Your task to perform on an android device: open the mobile data screen to see how much data has been used Image 0: 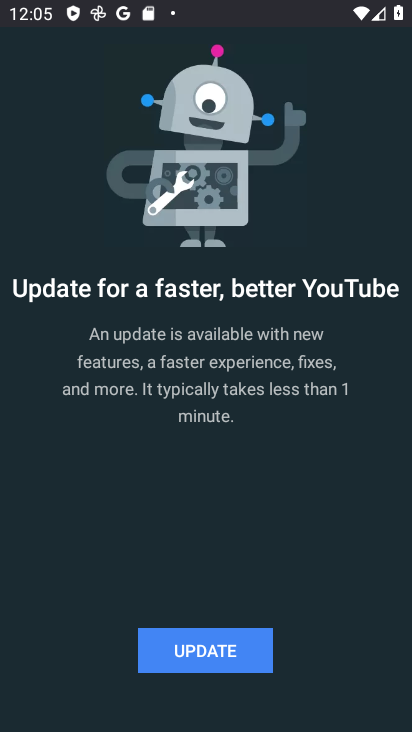
Step 0: press back button
Your task to perform on an android device: open the mobile data screen to see how much data has been used Image 1: 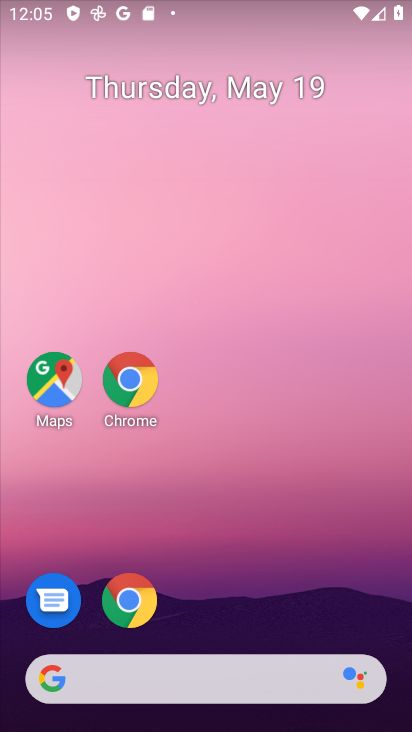
Step 1: drag from (285, 640) to (159, 69)
Your task to perform on an android device: open the mobile data screen to see how much data has been used Image 2: 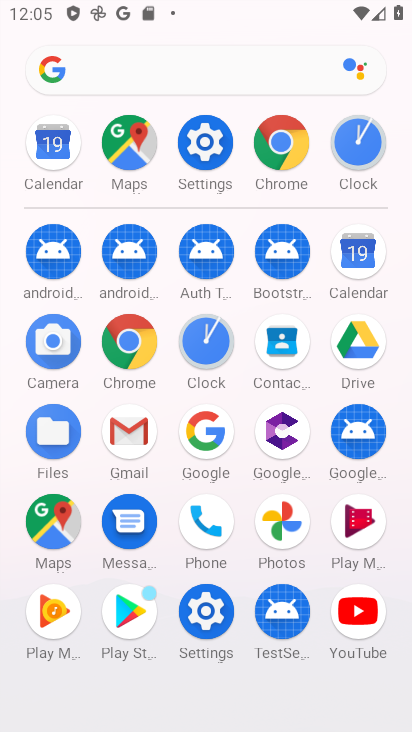
Step 2: click (210, 602)
Your task to perform on an android device: open the mobile data screen to see how much data has been used Image 3: 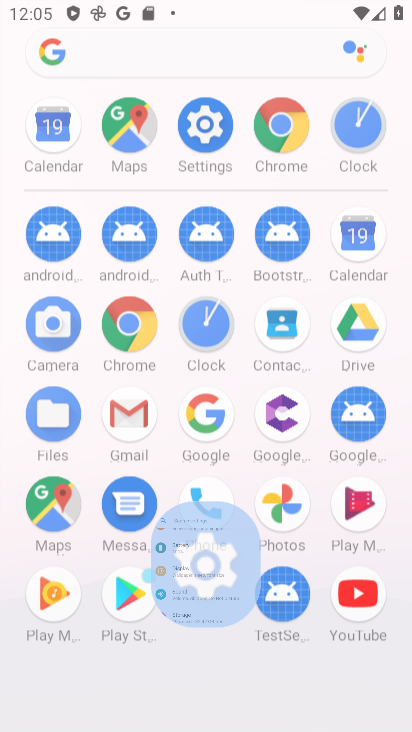
Step 3: click (214, 606)
Your task to perform on an android device: open the mobile data screen to see how much data has been used Image 4: 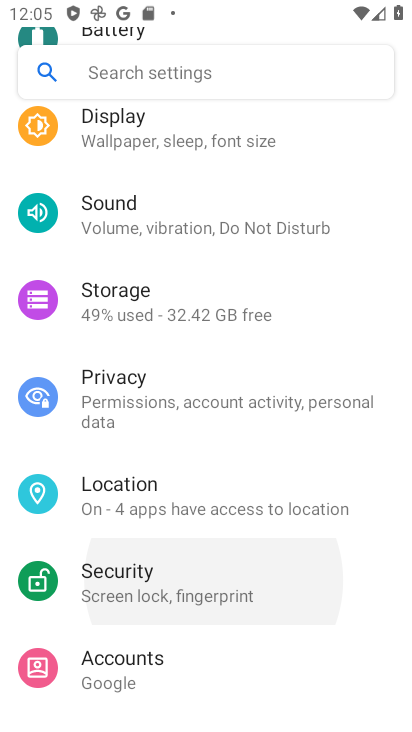
Step 4: click (214, 606)
Your task to perform on an android device: open the mobile data screen to see how much data has been used Image 5: 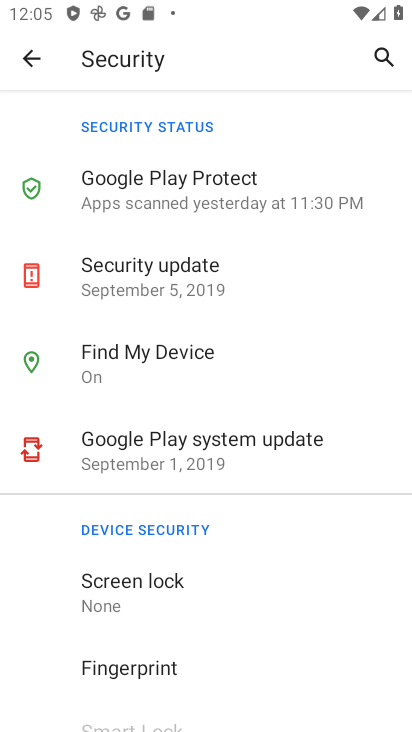
Step 5: click (32, 47)
Your task to perform on an android device: open the mobile data screen to see how much data has been used Image 6: 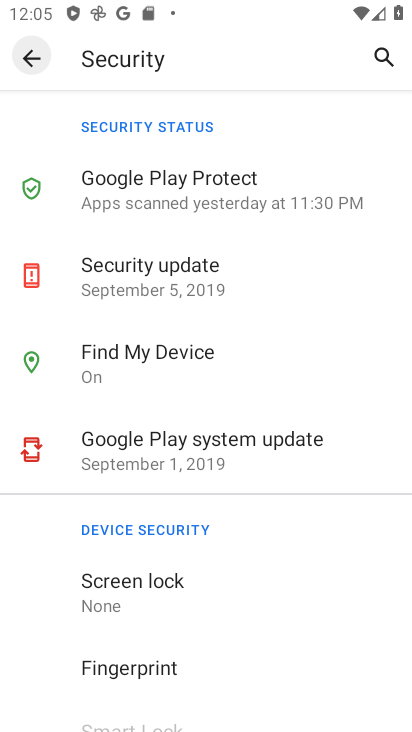
Step 6: click (34, 49)
Your task to perform on an android device: open the mobile data screen to see how much data has been used Image 7: 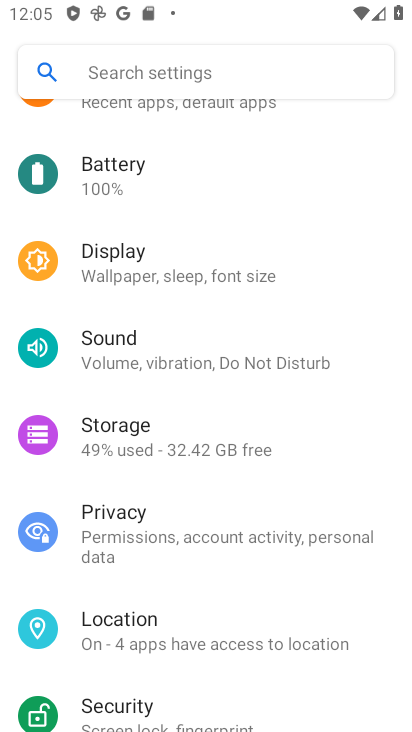
Step 7: drag from (111, 194) to (224, 571)
Your task to perform on an android device: open the mobile data screen to see how much data has been used Image 8: 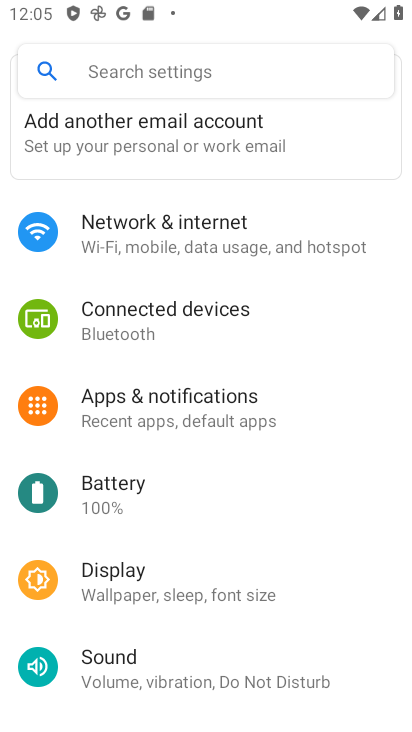
Step 8: drag from (77, 210) to (239, 532)
Your task to perform on an android device: open the mobile data screen to see how much data has been used Image 9: 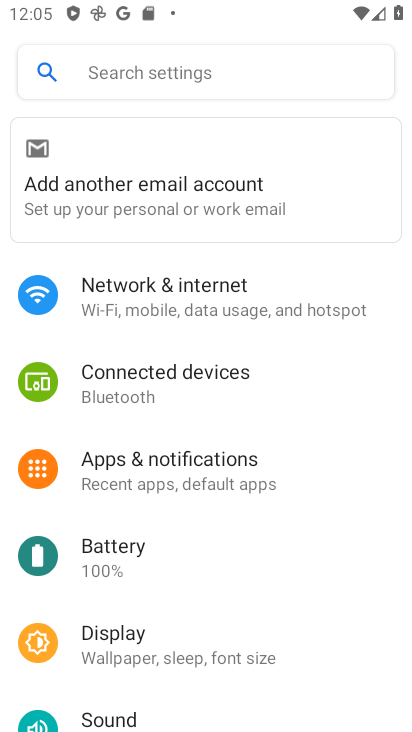
Step 9: click (167, 300)
Your task to perform on an android device: open the mobile data screen to see how much data has been used Image 10: 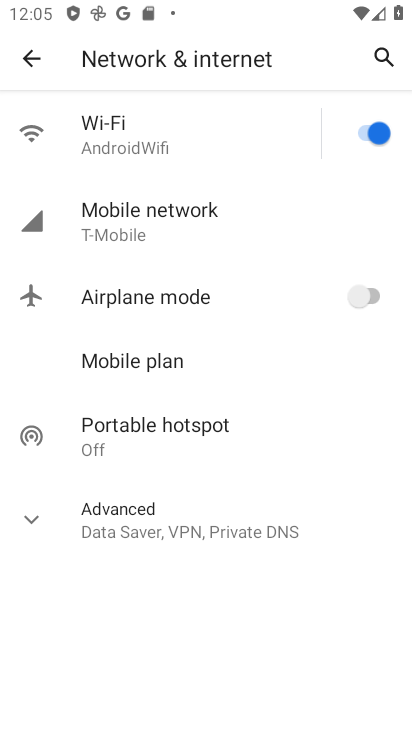
Step 10: click (111, 231)
Your task to perform on an android device: open the mobile data screen to see how much data has been used Image 11: 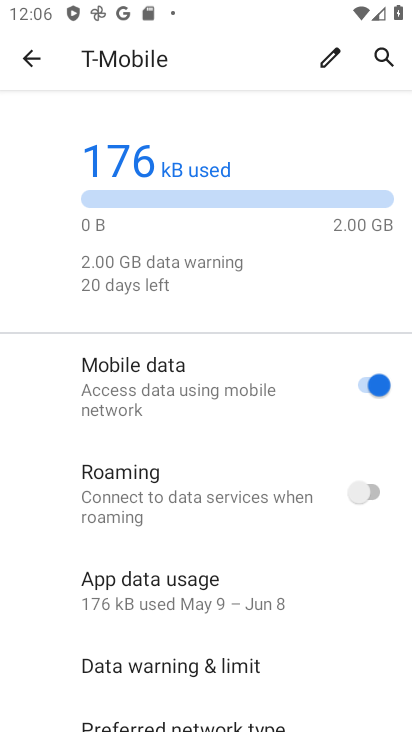
Step 11: click (16, 53)
Your task to perform on an android device: open the mobile data screen to see how much data has been used Image 12: 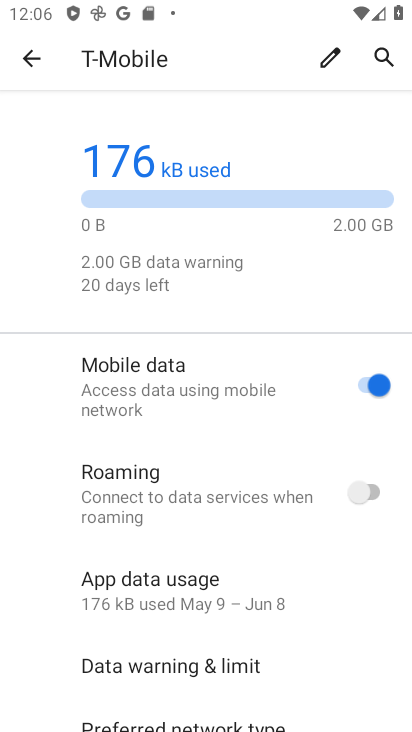
Step 12: click (20, 56)
Your task to perform on an android device: open the mobile data screen to see how much data has been used Image 13: 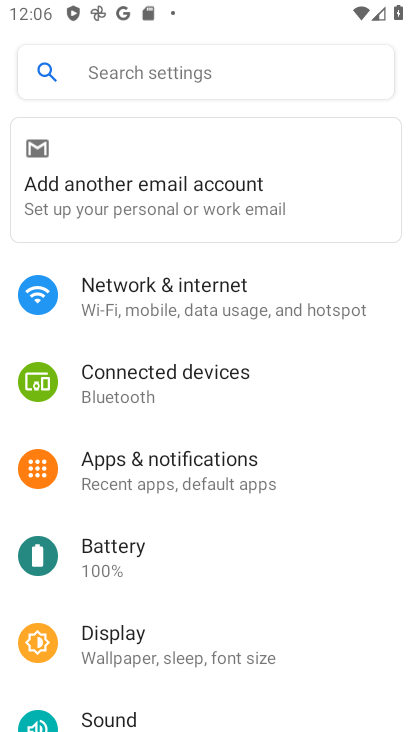
Step 13: click (162, 295)
Your task to perform on an android device: open the mobile data screen to see how much data has been used Image 14: 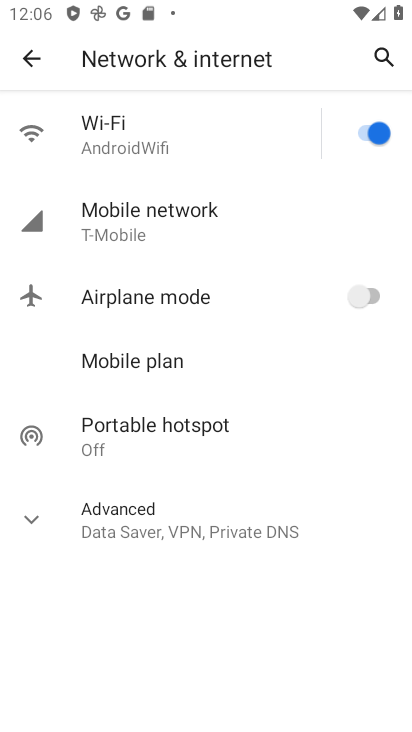
Step 14: task complete